Your task to perform on an android device: turn off wifi Image 0: 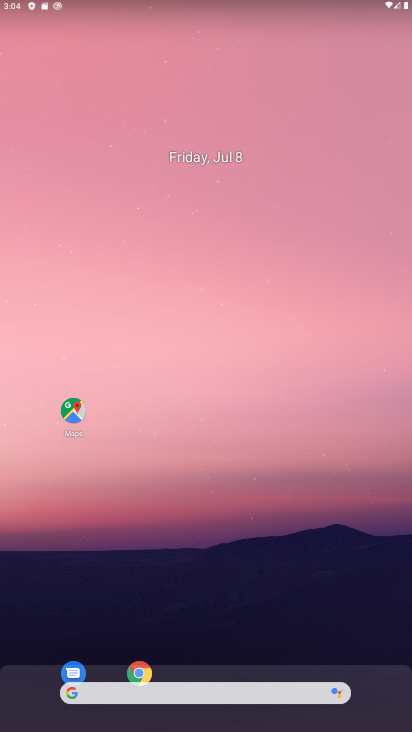
Step 0: drag from (240, 701) to (360, 0)
Your task to perform on an android device: turn off wifi Image 1: 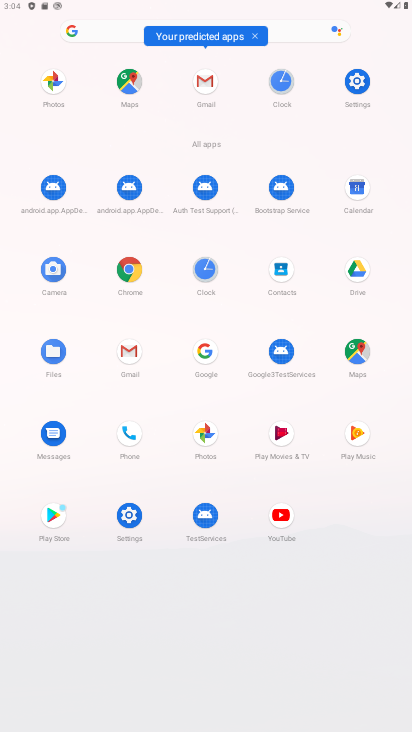
Step 1: click (131, 513)
Your task to perform on an android device: turn off wifi Image 2: 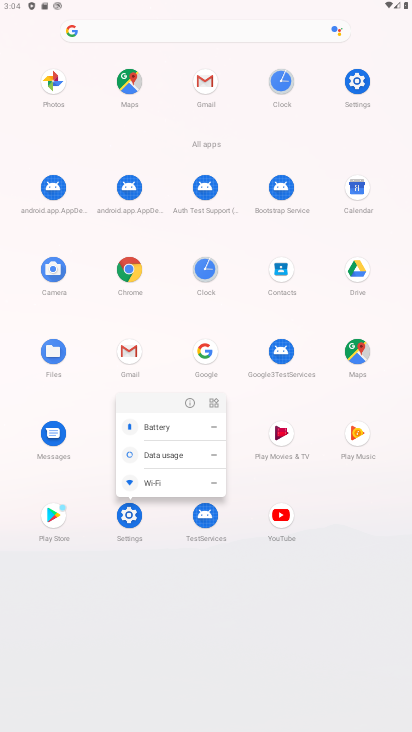
Step 2: click (131, 522)
Your task to perform on an android device: turn off wifi Image 3: 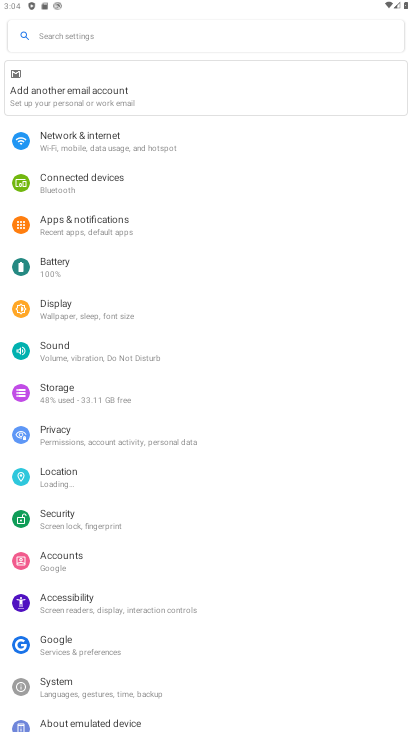
Step 3: click (168, 148)
Your task to perform on an android device: turn off wifi Image 4: 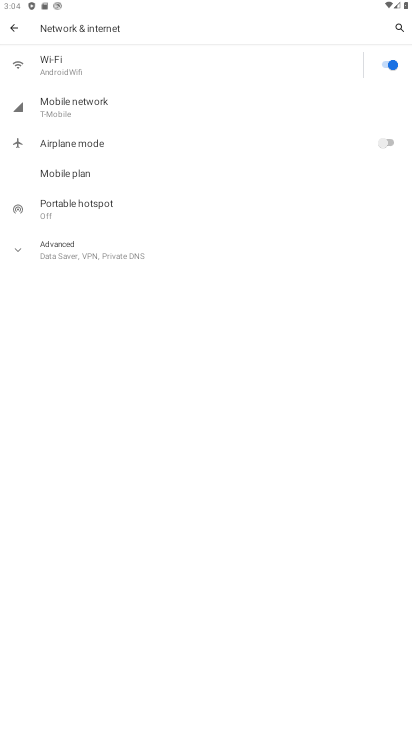
Step 4: click (386, 62)
Your task to perform on an android device: turn off wifi Image 5: 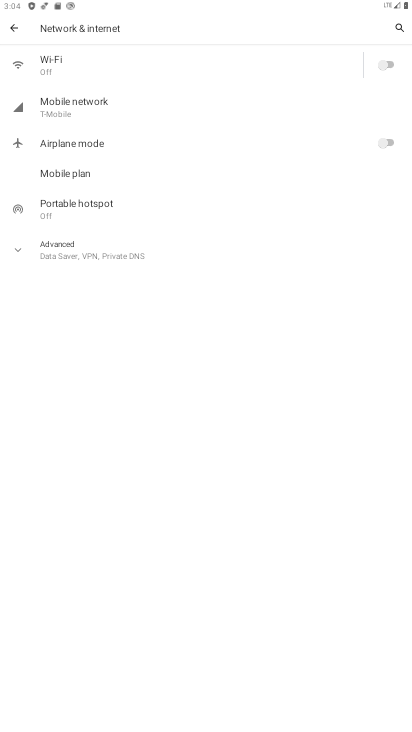
Step 5: task complete